Your task to perform on an android device: add a contact Image 0: 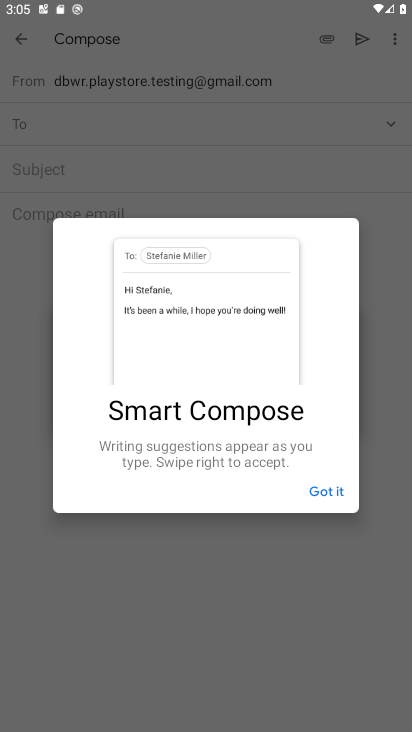
Step 0: press home button
Your task to perform on an android device: add a contact Image 1: 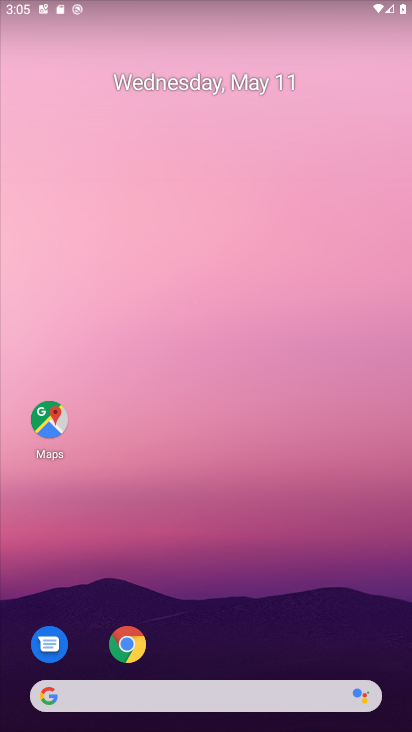
Step 1: drag from (199, 675) to (130, 15)
Your task to perform on an android device: add a contact Image 2: 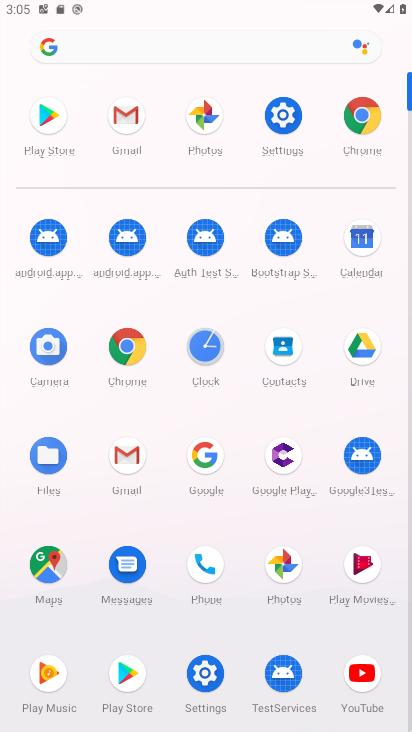
Step 2: click (190, 570)
Your task to perform on an android device: add a contact Image 3: 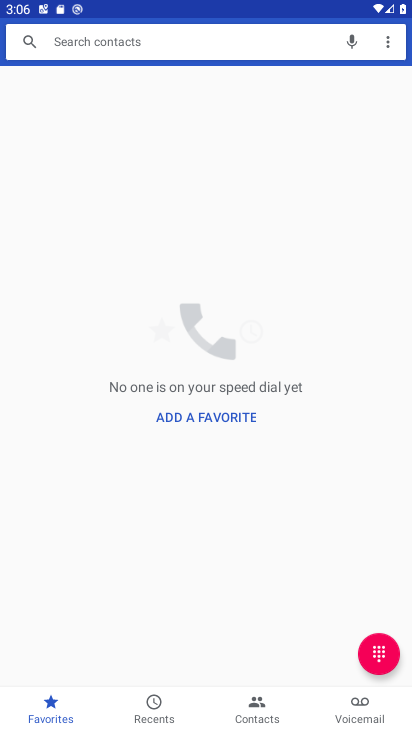
Step 3: click (268, 713)
Your task to perform on an android device: add a contact Image 4: 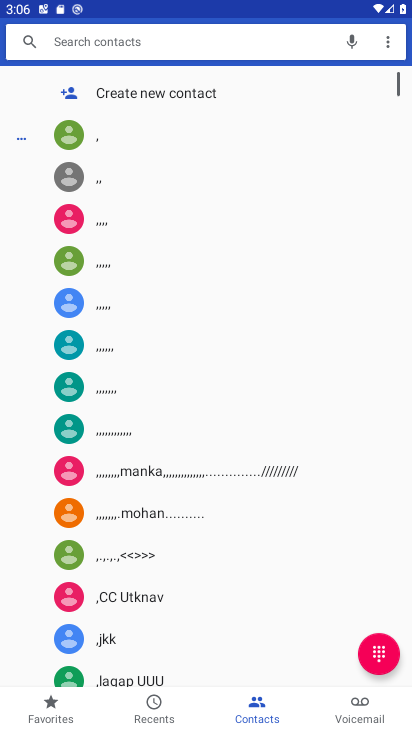
Step 4: click (154, 100)
Your task to perform on an android device: add a contact Image 5: 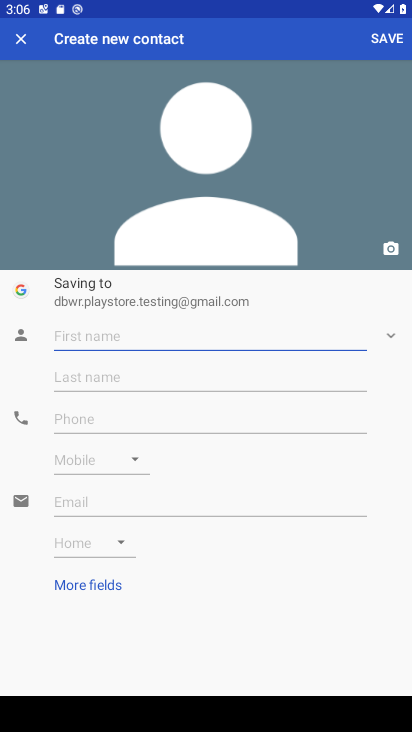
Step 5: type "bghj"
Your task to perform on an android device: add a contact Image 6: 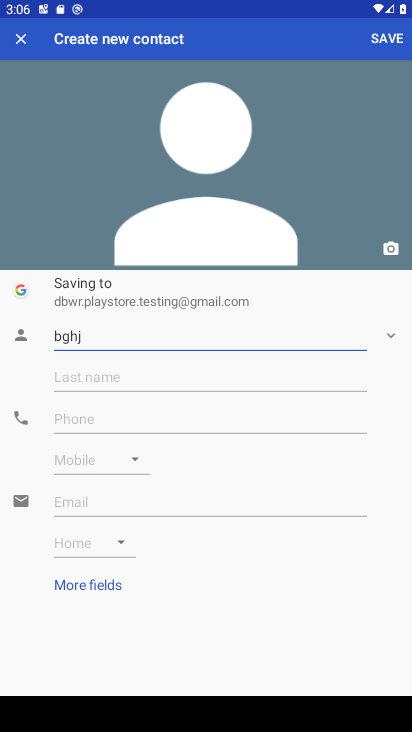
Step 6: click (107, 411)
Your task to perform on an android device: add a contact Image 7: 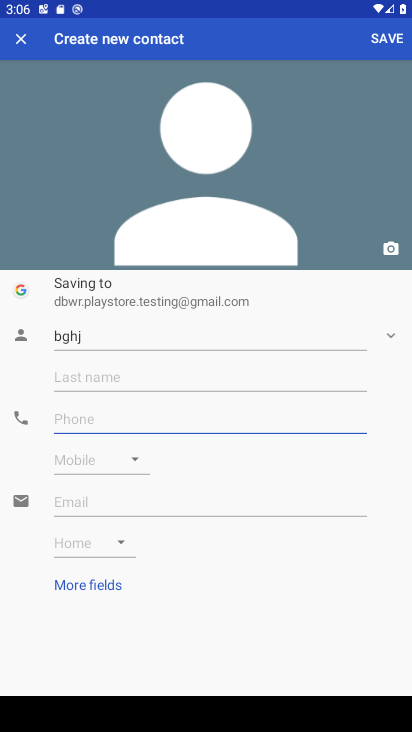
Step 7: type "876546"
Your task to perform on an android device: add a contact Image 8: 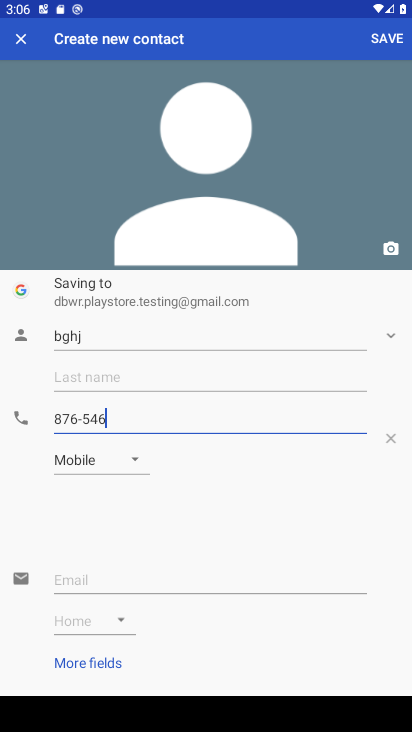
Step 8: type ""
Your task to perform on an android device: add a contact Image 9: 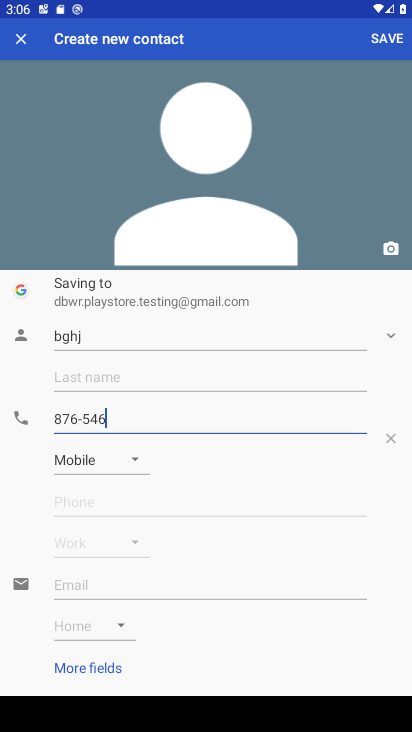
Step 9: click (387, 42)
Your task to perform on an android device: add a contact Image 10: 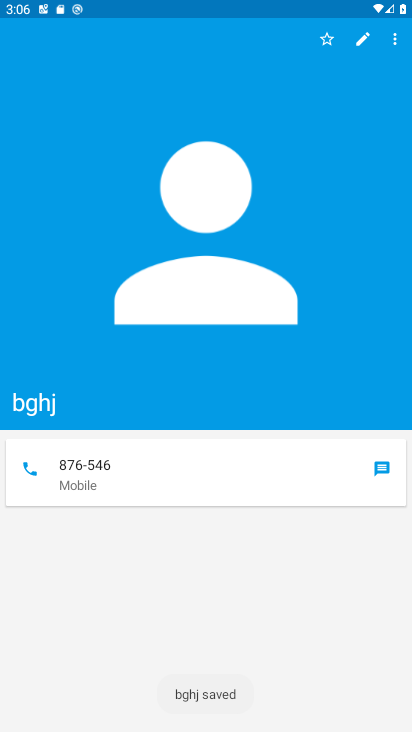
Step 10: task complete